Your task to perform on an android device: change the clock display to digital Image 0: 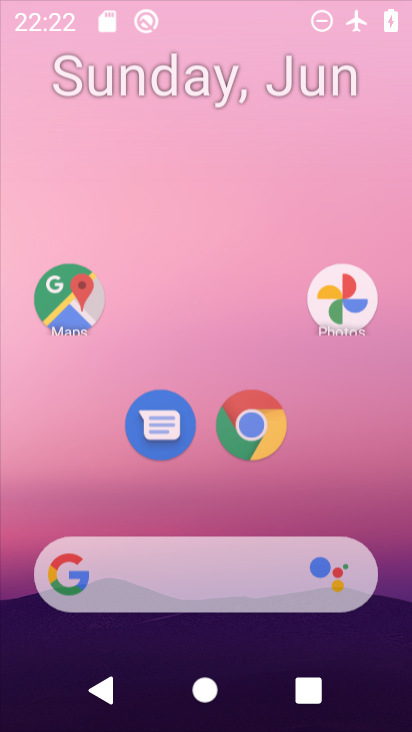
Step 0: press home button
Your task to perform on an android device: change the clock display to digital Image 1: 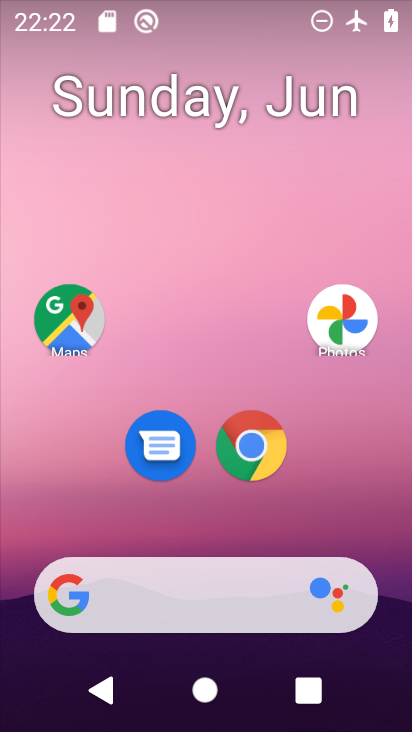
Step 1: drag from (221, 528) to (206, 6)
Your task to perform on an android device: change the clock display to digital Image 2: 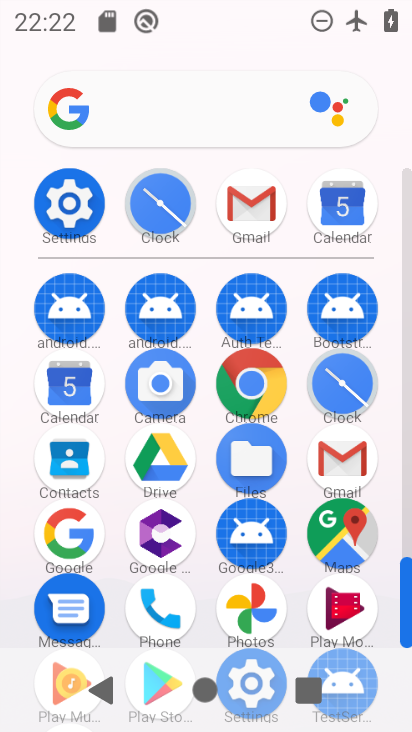
Step 2: click (167, 221)
Your task to perform on an android device: change the clock display to digital Image 3: 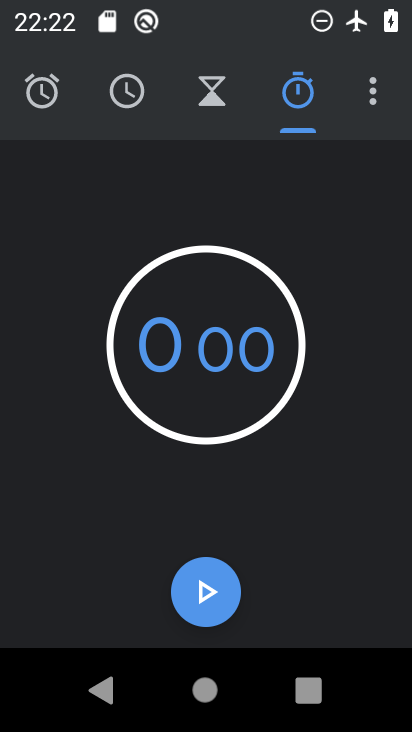
Step 3: click (374, 99)
Your task to perform on an android device: change the clock display to digital Image 4: 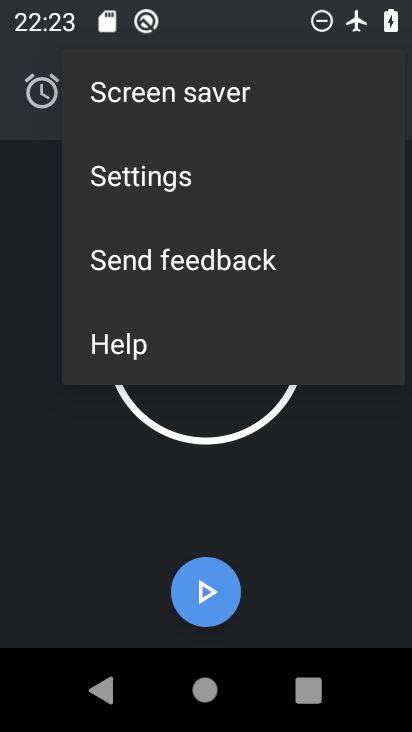
Step 4: click (134, 176)
Your task to perform on an android device: change the clock display to digital Image 5: 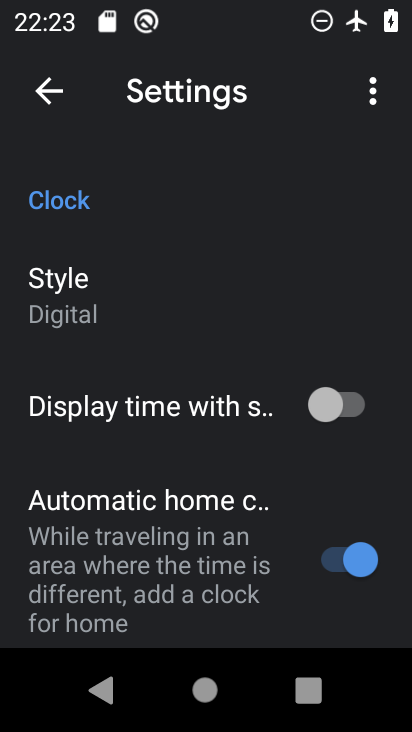
Step 5: click (60, 291)
Your task to perform on an android device: change the clock display to digital Image 6: 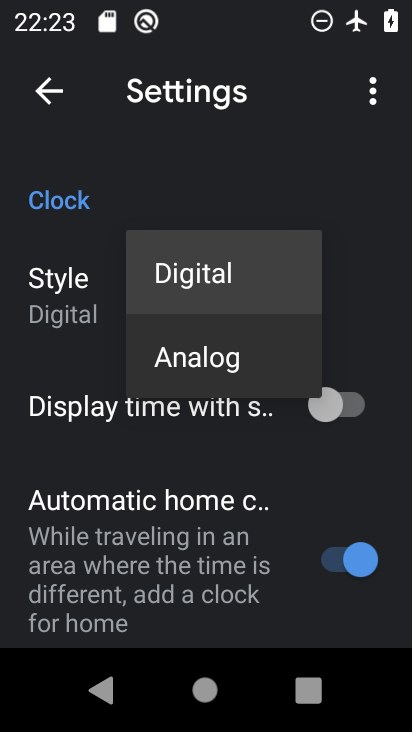
Step 6: task complete